Your task to perform on an android device: What is the news today? Image 0: 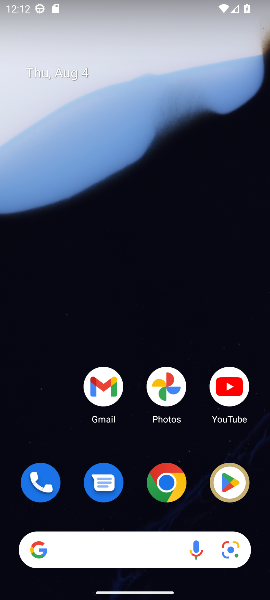
Step 0: drag from (135, 446) to (139, 153)
Your task to perform on an android device: What is the news today? Image 1: 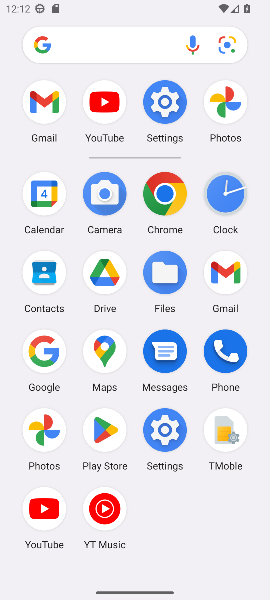
Step 1: click (94, 365)
Your task to perform on an android device: What is the news today? Image 2: 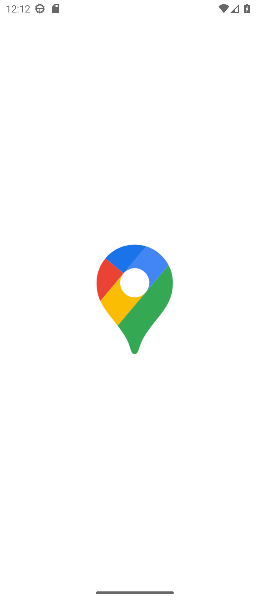
Step 2: press back button
Your task to perform on an android device: What is the news today? Image 3: 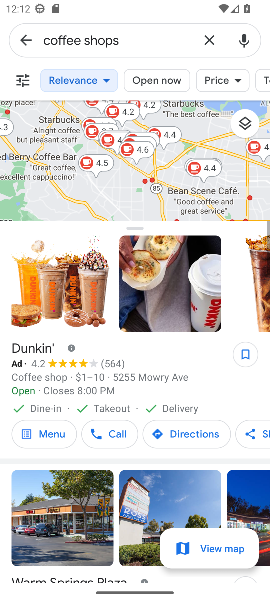
Step 3: press home button
Your task to perform on an android device: What is the news today? Image 4: 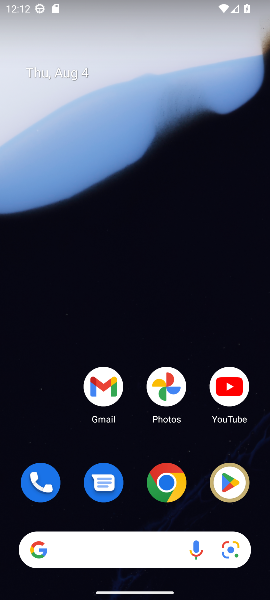
Step 4: drag from (136, 452) to (141, 191)
Your task to perform on an android device: What is the news today? Image 5: 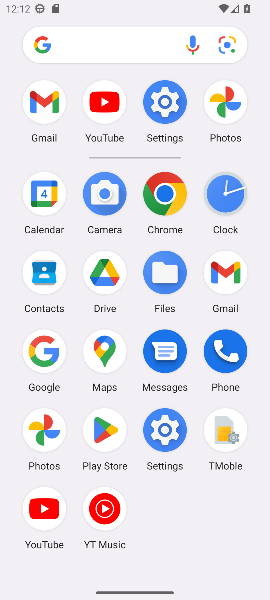
Step 5: click (50, 354)
Your task to perform on an android device: What is the news today? Image 6: 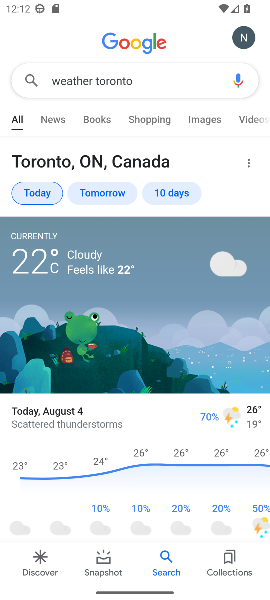
Step 6: click (201, 74)
Your task to perform on an android device: What is the news today? Image 7: 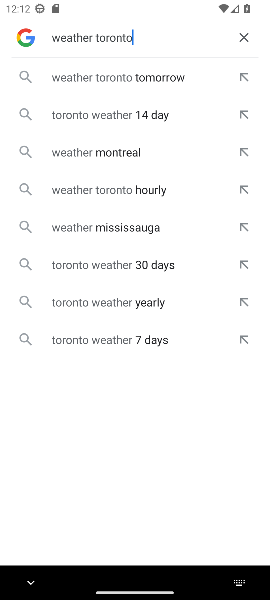
Step 7: click (246, 44)
Your task to perform on an android device: What is the news today? Image 8: 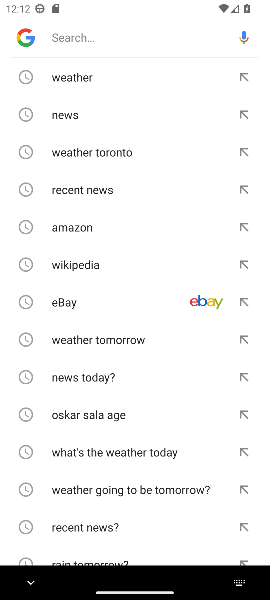
Step 8: click (95, 109)
Your task to perform on an android device: What is the news today? Image 9: 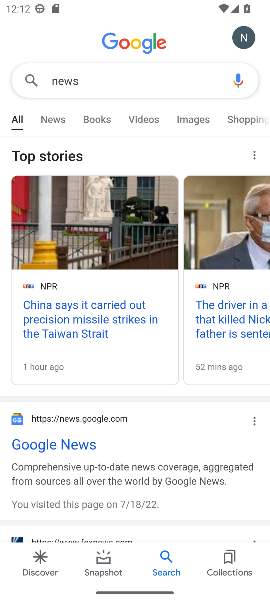
Step 9: click (47, 121)
Your task to perform on an android device: What is the news today? Image 10: 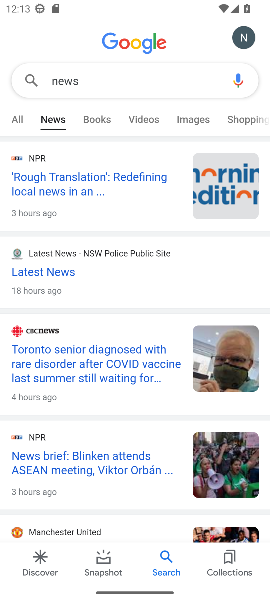
Step 10: task complete